Your task to perform on an android device: show emergency info Image 0: 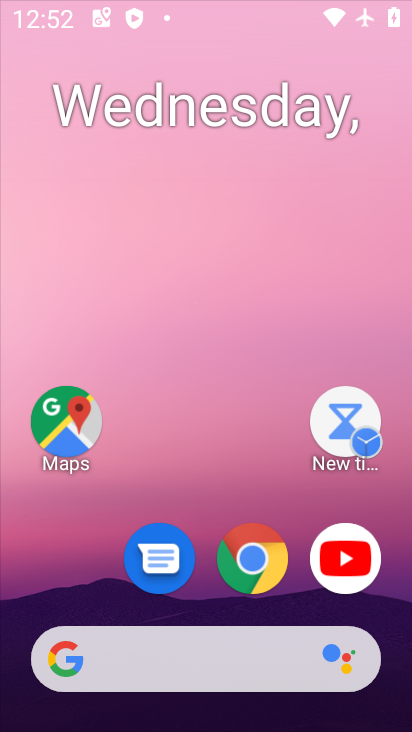
Step 0: drag from (209, 526) to (87, 22)
Your task to perform on an android device: show emergency info Image 1: 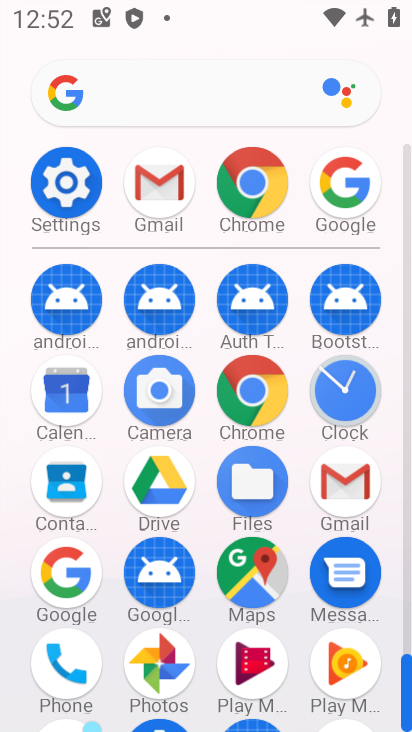
Step 1: drag from (179, 327) to (223, 256)
Your task to perform on an android device: show emergency info Image 2: 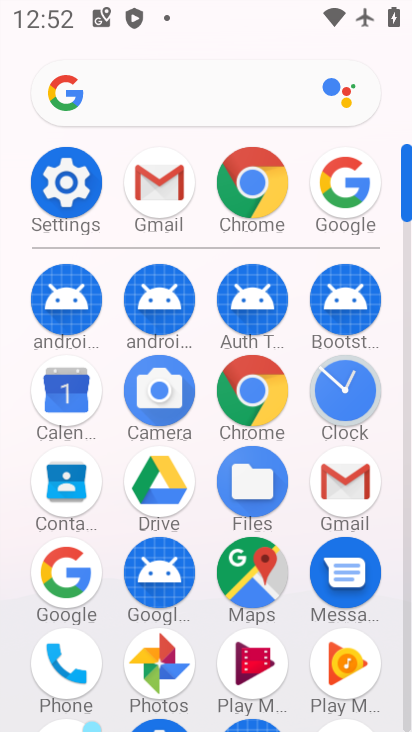
Step 2: click (58, 188)
Your task to perform on an android device: show emergency info Image 3: 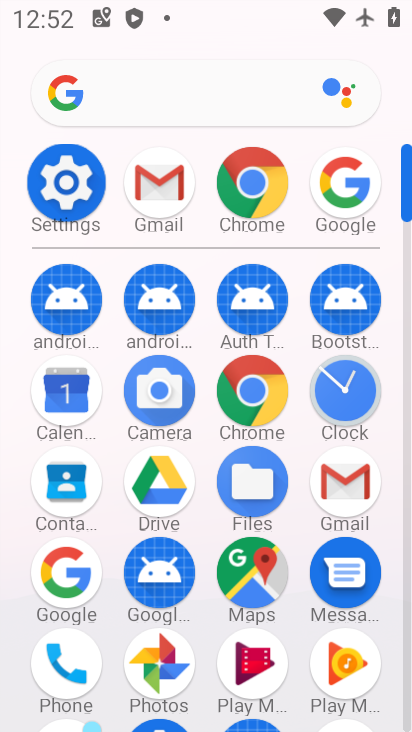
Step 3: click (57, 188)
Your task to perform on an android device: show emergency info Image 4: 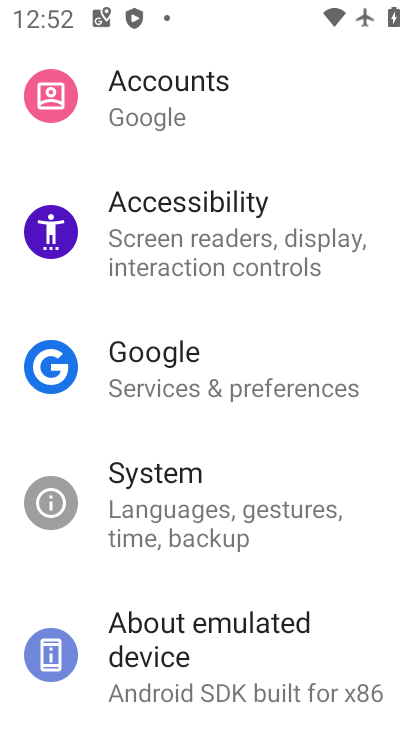
Step 4: click (66, 194)
Your task to perform on an android device: show emergency info Image 5: 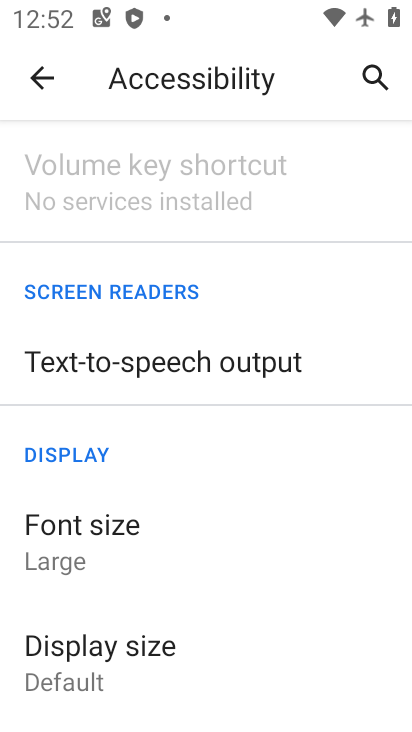
Step 5: click (39, 79)
Your task to perform on an android device: show emergency info Image 6: 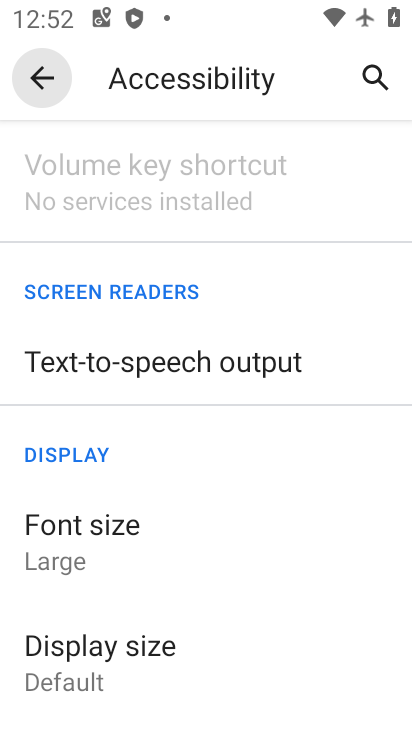
Step 6: click (41, 77)
Your task to perform on an android device: show emergency info Image 7: 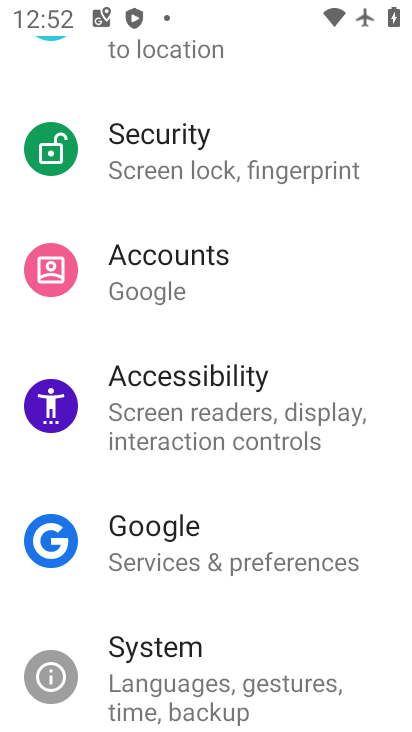
Step 7: drag from (133, 524) to (134, 67)
Your task to perform on an android device: show emergency info Image 8: 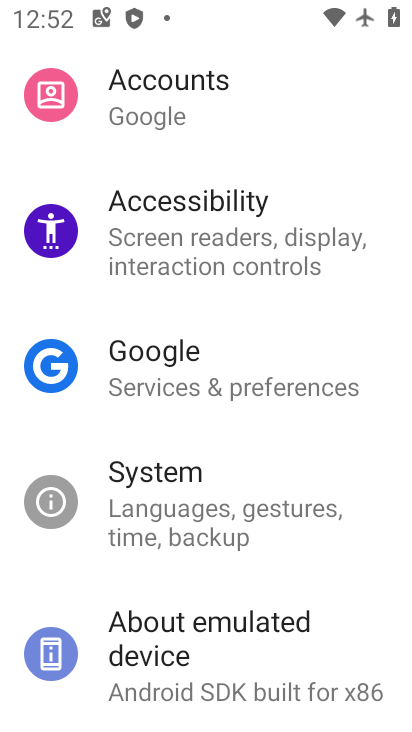
Step 8: drag from (149, 225) to (216, 137)
Your task to perform on an android device: show emergency info Image 9: 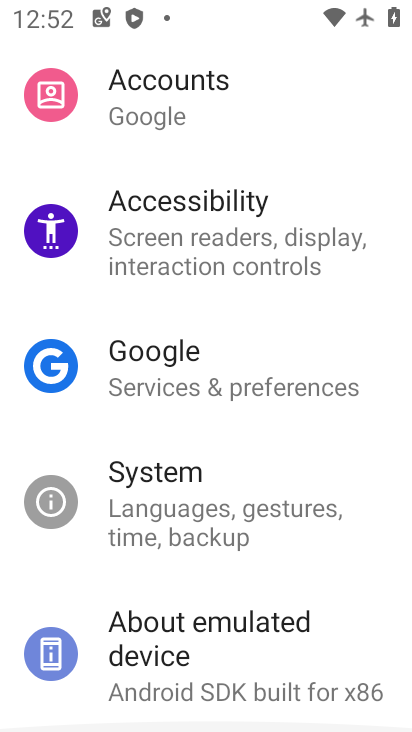
Step 9: click (134, 67)
Your task to perform on an android device: show emergency info Image 10: 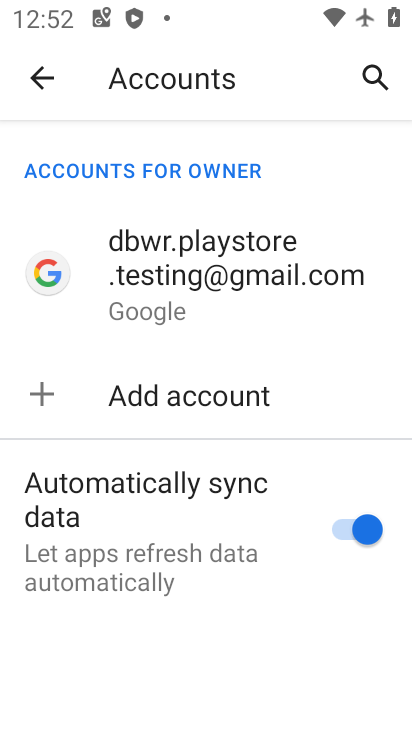
Step 10: click (191, 633)
Your task to perform on an android device: show emergency info Image 11: 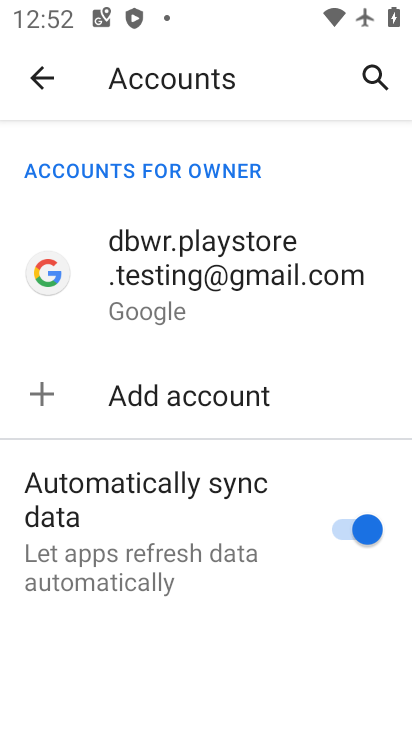
Step 11: click (184, 637)
Your task to perform on an android device: show emergency info Image 12: 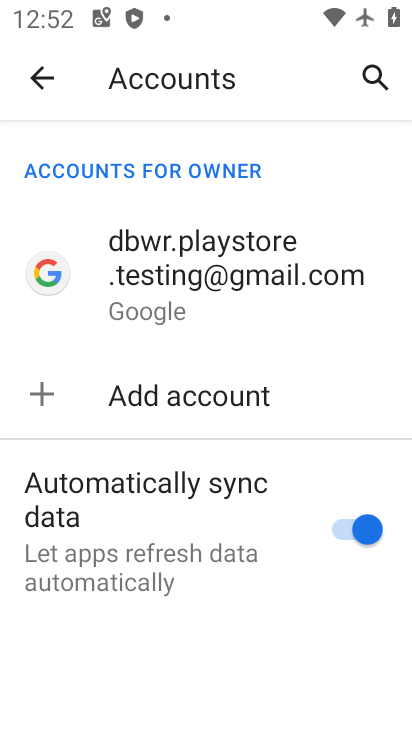
Step 12: task complete